Your task to perform on an android device: Open maps Image 0: 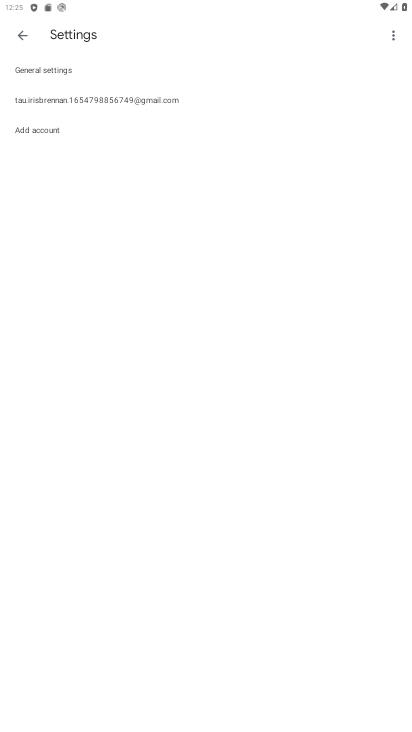
Step 0: press home button
Your task to perform on an android device: Open maps Image 1: 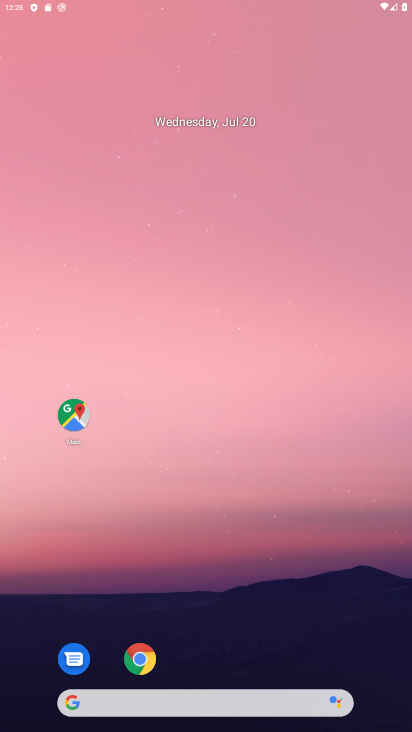
Step 1: drag from (386, 655) to (201, 10)
Your task to perform on an android device: Open maps Image 2: 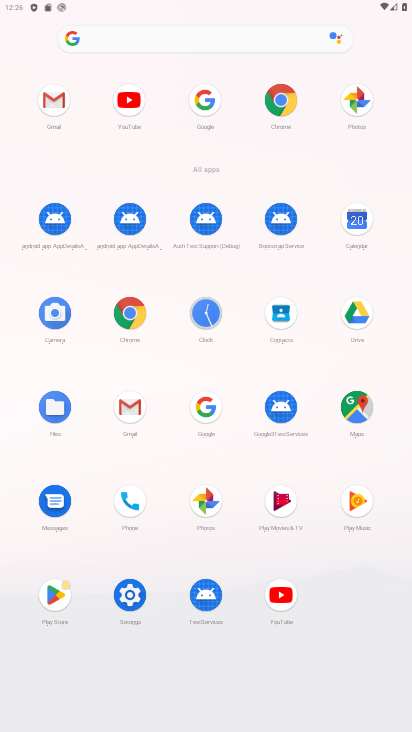
Step 2: click (345, 417)
Your task to perform on an android device: Open maps Image 3: 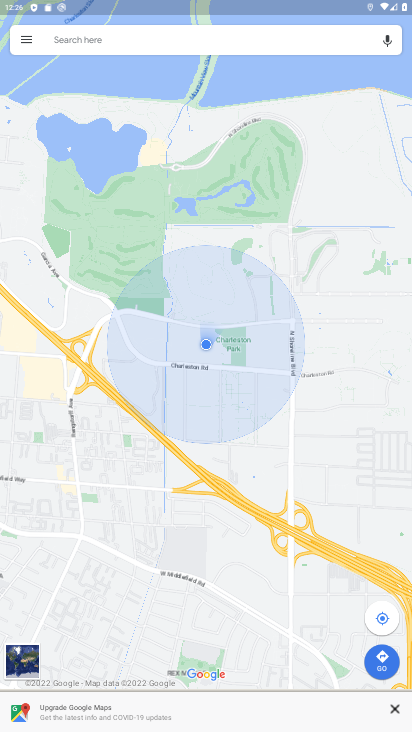
Step 3: task complete